Your task to perform on an android device: Open Google Maps Image 0: 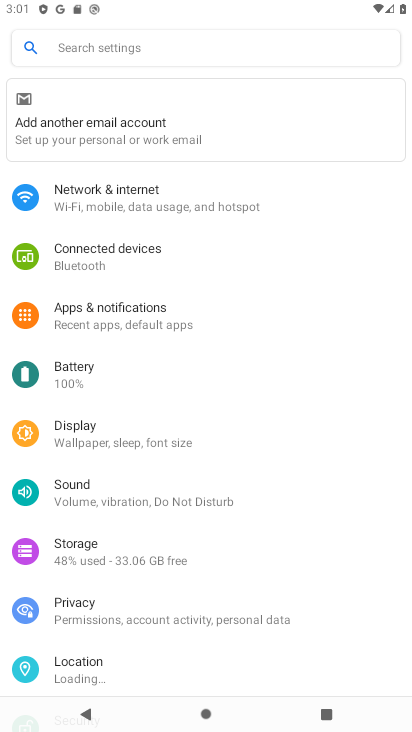
Step 0: press home button
Your task to perform on an android device: Open Google Maps Image 1: 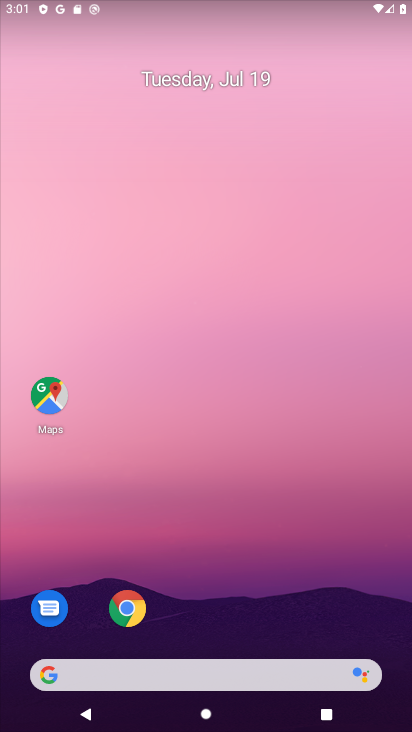
Step 1: click (57, 399)
Your task to perform on an android device: Open Google Maps Image 2: 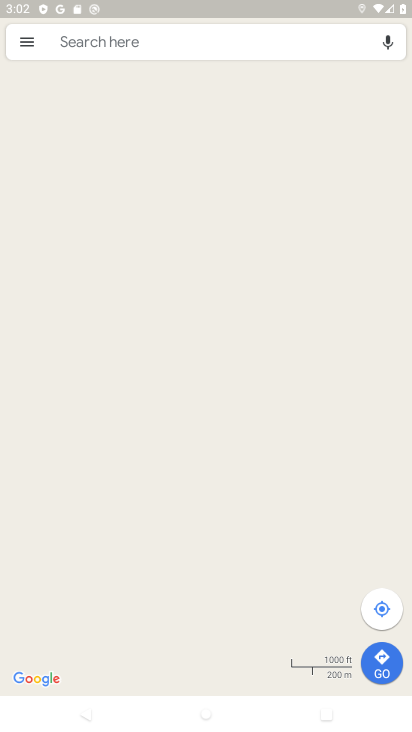
Step 2: task complete